Your task to perform on an android device: change the clock style Image 0: 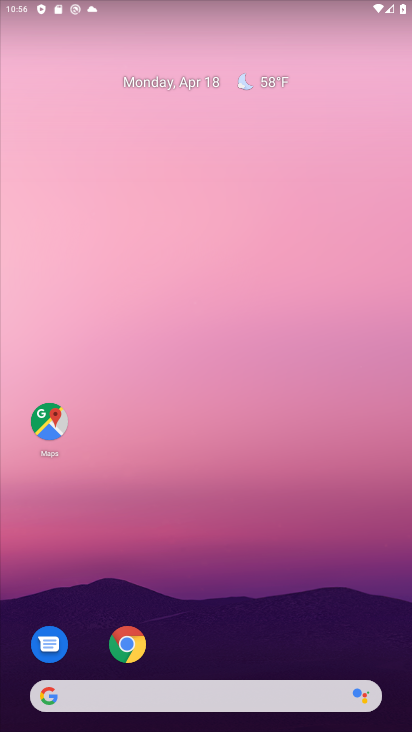
Step 0: drag from (269, 506) to (339, 112)
Your task to perform on an android device: change the clock style Image 1: 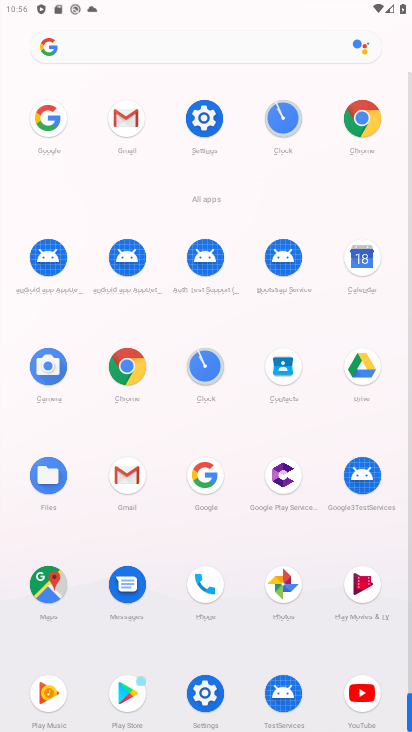
Step 1: click (203, 352)
Your task to perform on an android device: change the clock style Image 2: 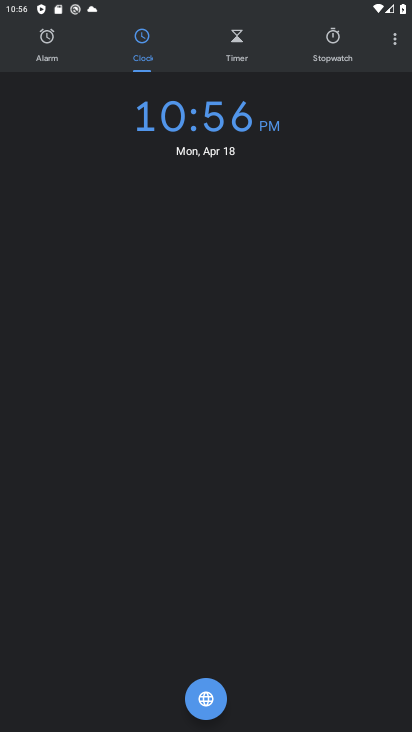
Step 2: click (397, 30)
Your task to perform on an android device: change the clock style Image 3: 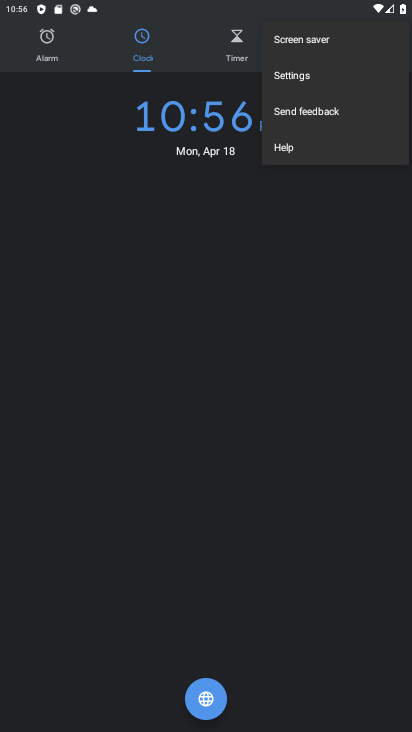
Step 3: click (279, 79)
Your task to perform on an android device: change the clock style Image 4: 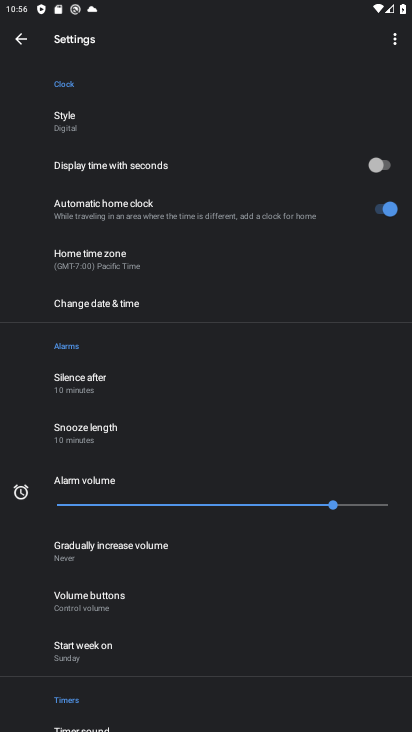
Step 4: click (71, 122)
Your task to perform on an android device: change the clock style Image 5: 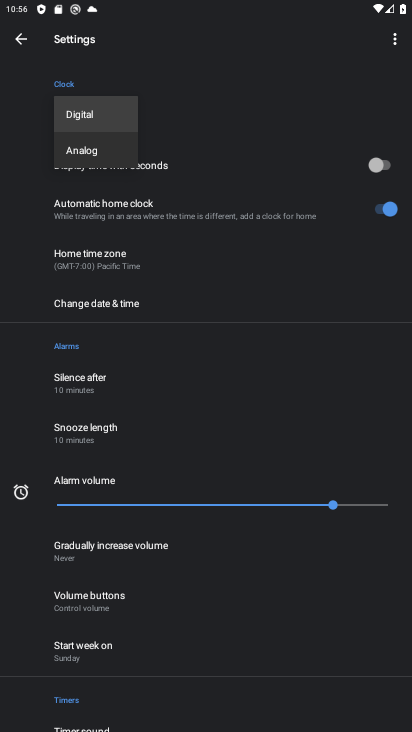
Step 5: click (110, 150)
Your task to perform on an android device: change the clock style Image 6: 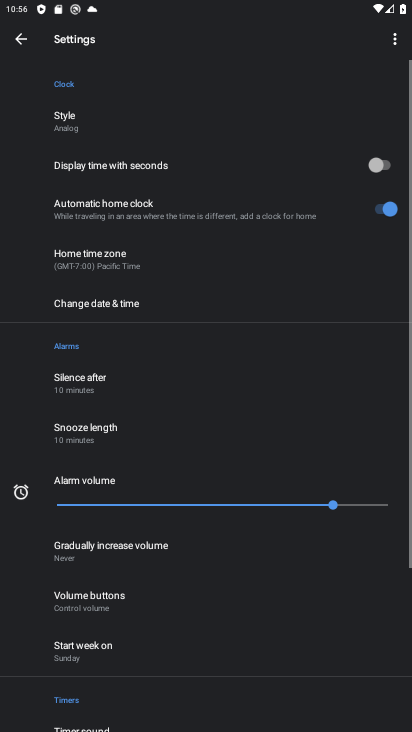
Step 6: task complete